Your task to perform on an android device: set the stopwatch Image 0: 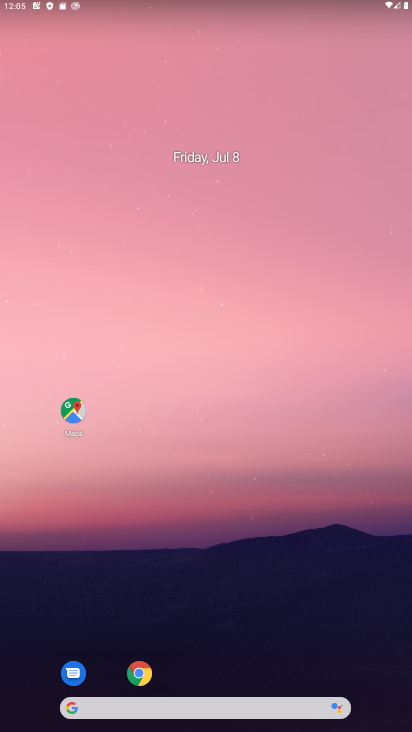
Step 0: drag from (260, 625) to (245, 167)
Your task to perform on an android device: set the stopwatch Image 1: 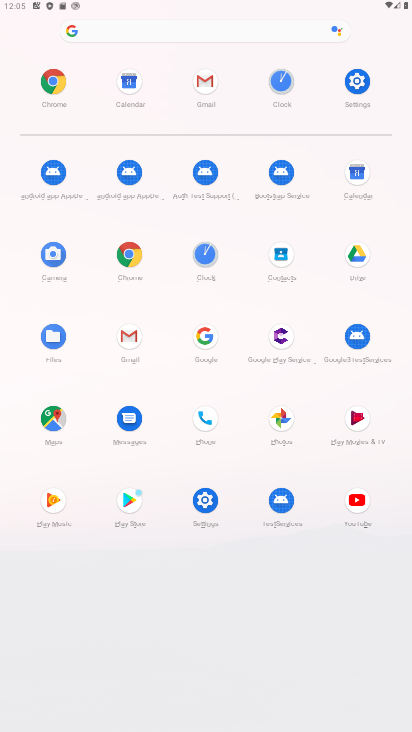
Step 1: click (286, 83)
Your task to perform on an android device: set the stopwatch Image 2: 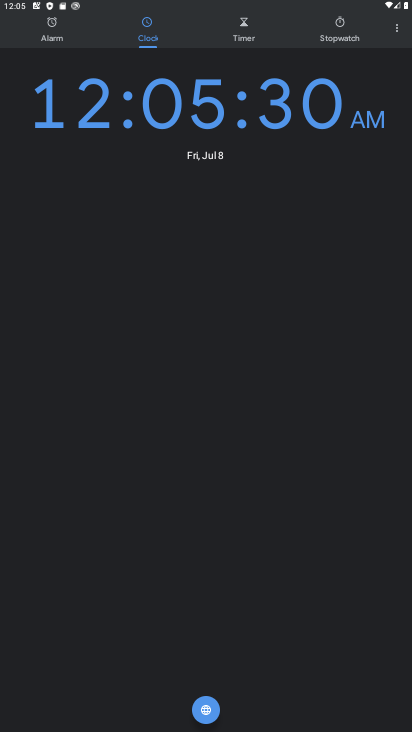
Step 2: click (338, 26)
Your task to perform on an android device: set the stopwatch Image 3: 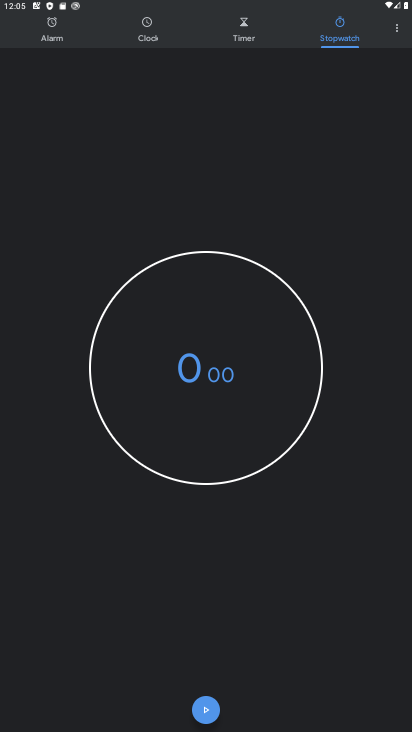
Step 3: click (228, 443)
Your task to perform on an android device: set the stopwatch Image 4: 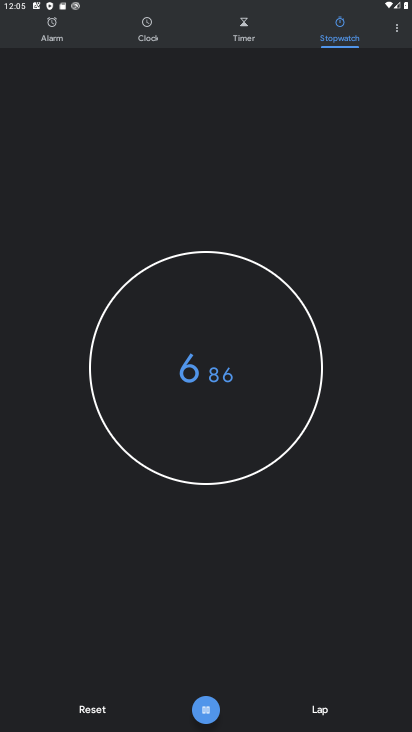
Step 4: click (228, 443)
Your task to perform on an android device: set the stopwatch Image 5: 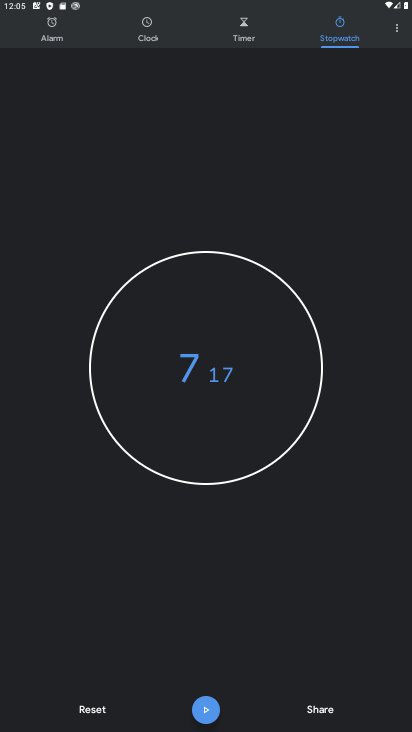
Step 5: task complete